Your task to perform on an android device: Go to ESPN.com Image 0: 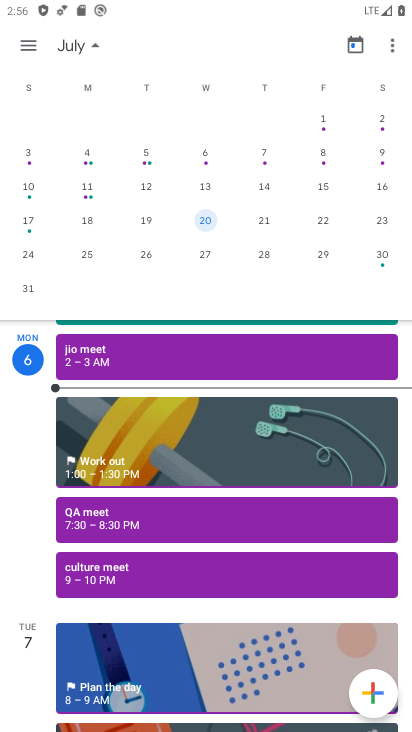
Step 0: press home button
Your task to perform on an android device: Go to ESPN.com Image 1: 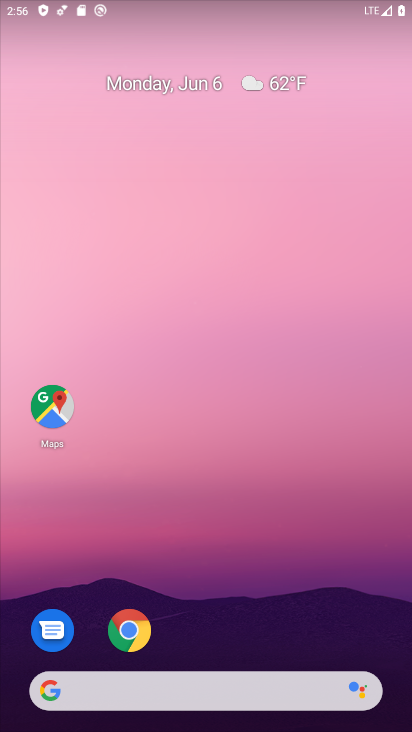
Step 1: click (145, 652)
Your task to perform on an android device: Go to ESPN.com Image 2: 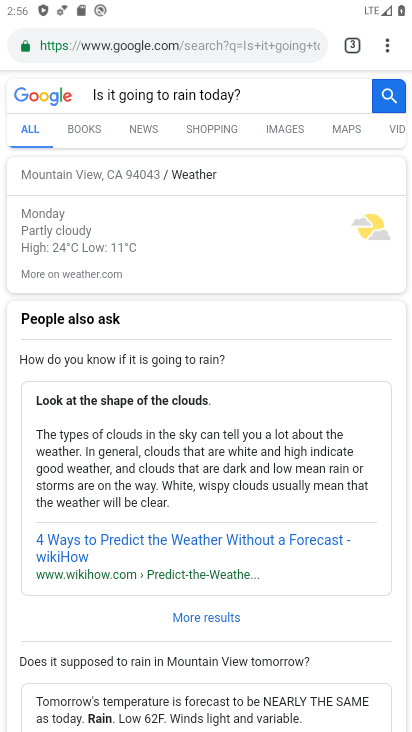
Step 2: click (194, 39)
Your task to perform on an android device: Go to ESPN.com Image 3: 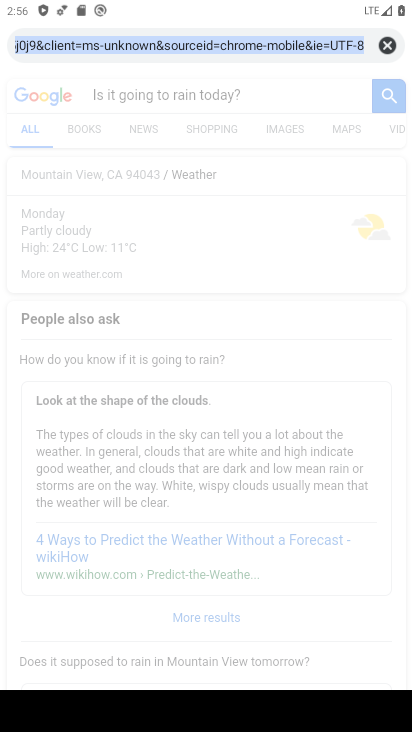
Step 3: type " ESPN.com"
Your task to perform on an android device: Go to ESPN.com Image 4: 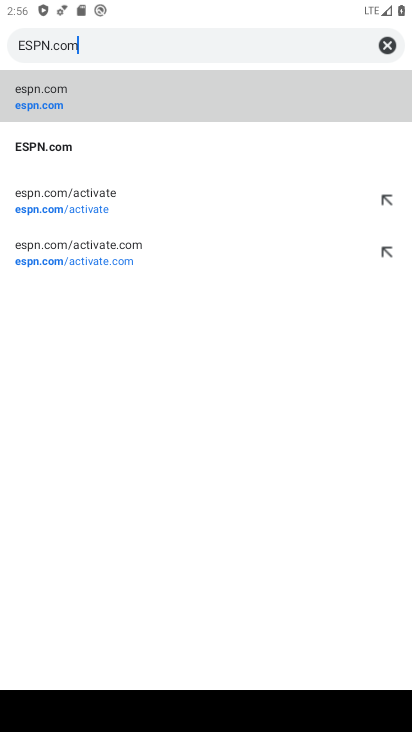
Step 4: type ""
Your task to perform on an android device: Go to ESPN.com Image 5: 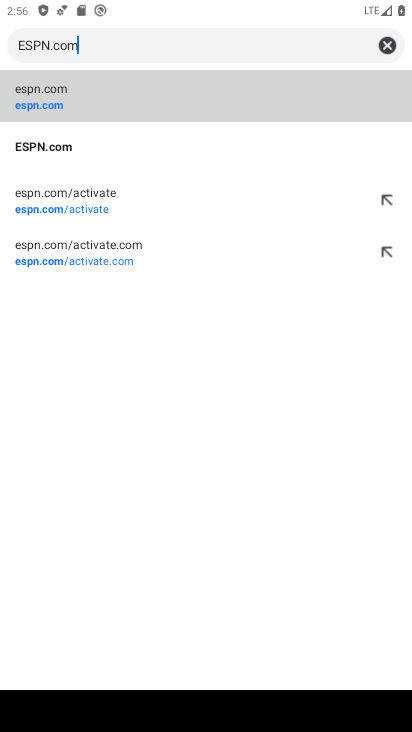
Step 5: click (162, 92)
Your task to perform on an android device: Go to ESPN.com Image 6: 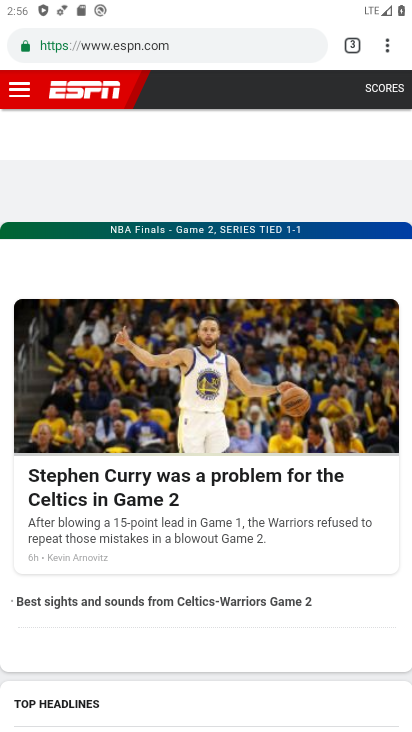
Step 6: task complete